Your task to perform on an android device: empty trash in google photos Image 0: 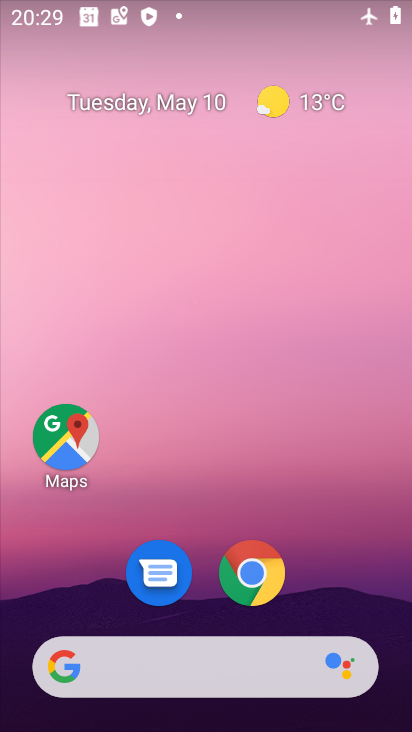
Step 0: drag from (345, 601) to (376, 15)
Your task to perform on an android device: empty trash in google photos Image 1: 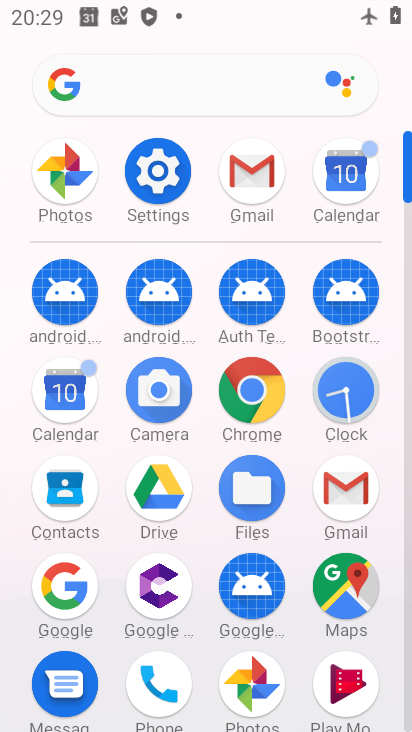
Step 1: click (71, 172)
Your task to perform on an android device: empty trash in google photos Image 2: 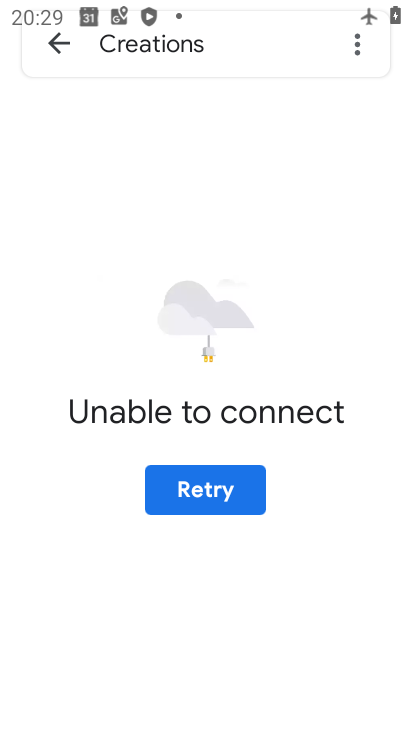
Step 2: click (64, 40)
Your task to perform on an android device: empty trash in google photos Image 3: 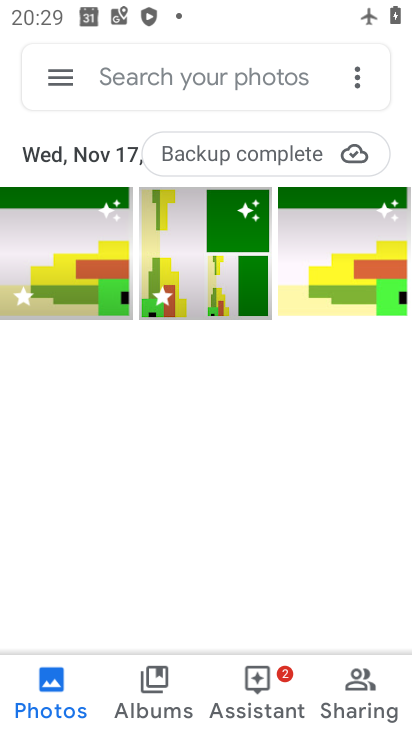
Step 3: click (57, 77)
Your task to perform on an android device: empty trash in google photos Image 4: 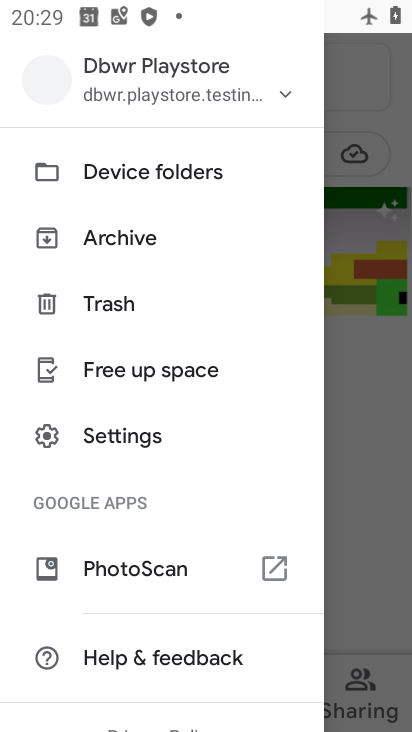
Step 4: click (96, 309)
Your task to perform on an android device: empty trash in google photos Image 5: 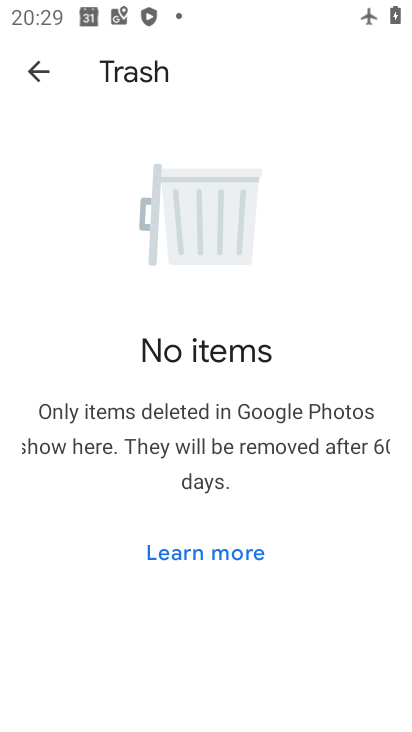
Step 5: task complete